Your task to perform on an android device: What's the news in Myanmar? Image 0: 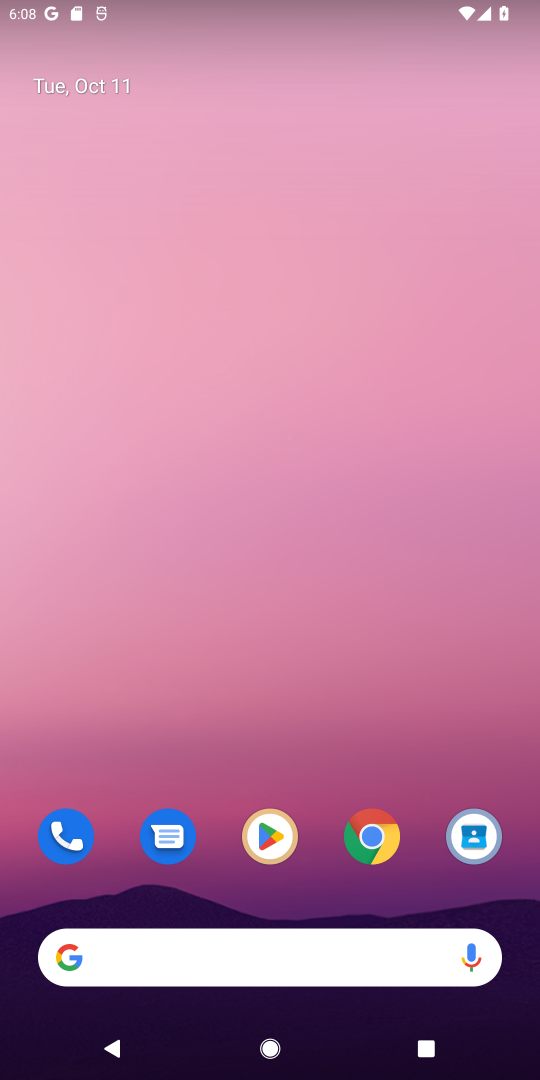
Step 0: click (363, 946)
Your task to perform on an android device: What's the news in Myanmar? Image 1: 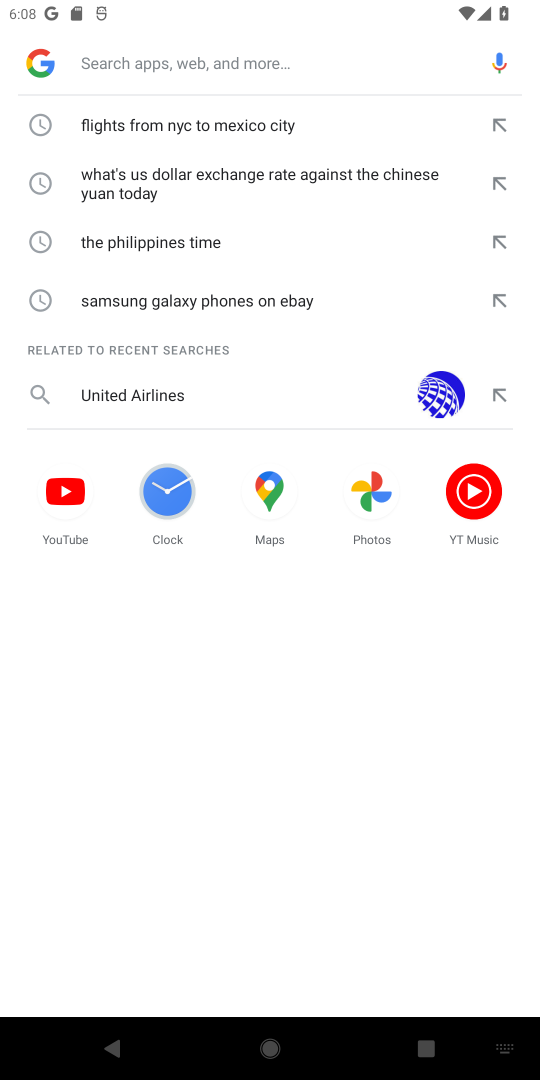
Step 1: type "news in Myanmar"
Your task to perform on an android device: What's the news in Myanmar? Image 2: 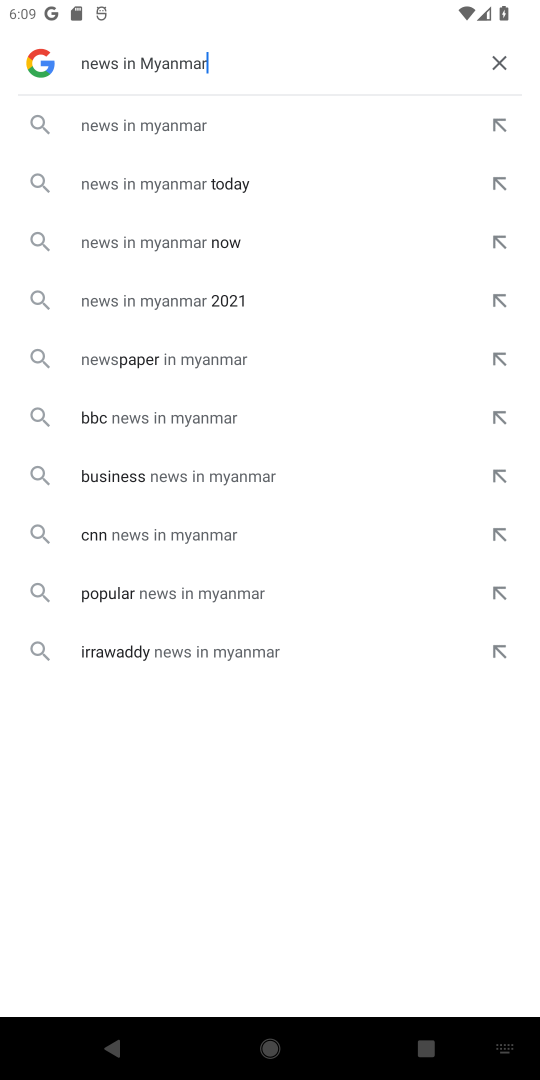
Step 2: click (319, 143)
Your task to perform on an android device: What's the news in Myanmar? Image 3: 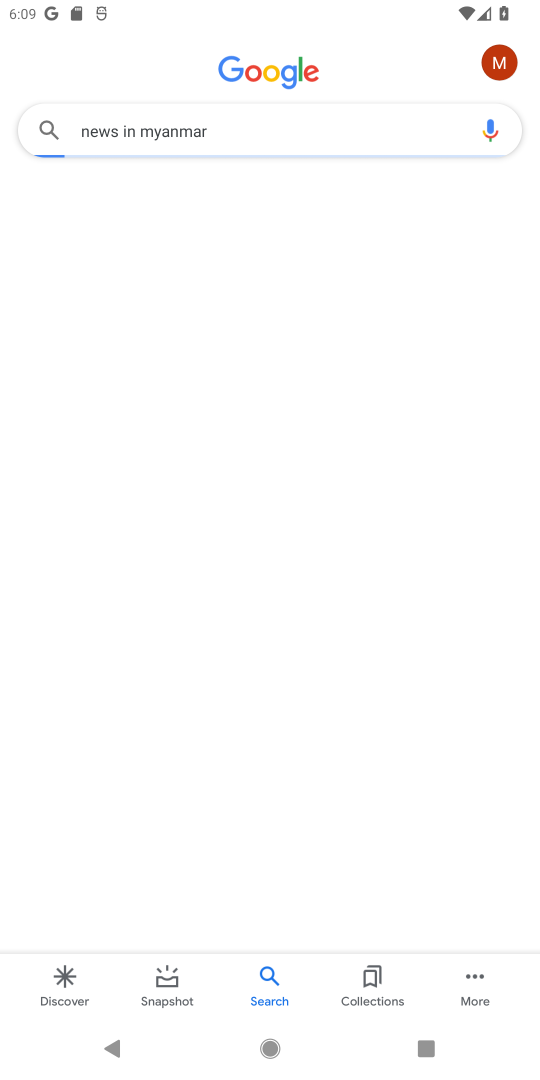
Step 3: task complete